Your task to perform on an android device: turn on the 24-hour format for clock Image 0: 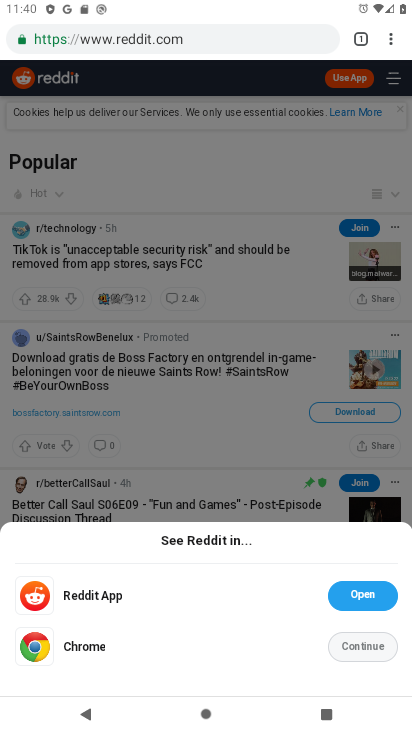
Step 0: press home button
Your task to perform on an android device: turn on the 24-hour format for clock Image 1: 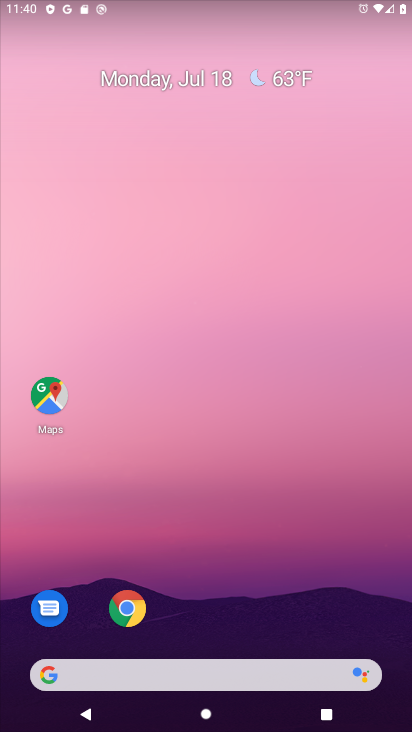
Step 1: drag from (233, 579) to (185, 14)
Your task to perform on an android device: turn on the 24-hour format for clock Image 2: 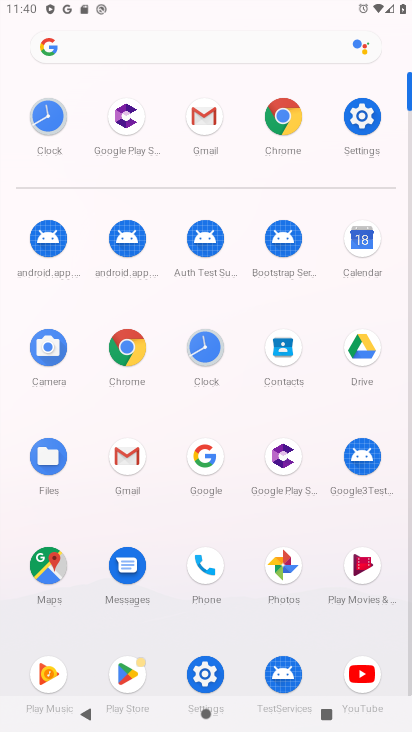
Step 2: click (207, 357)
Your task to perform on an android device: turn on the 24-hour format for clock Image 3: 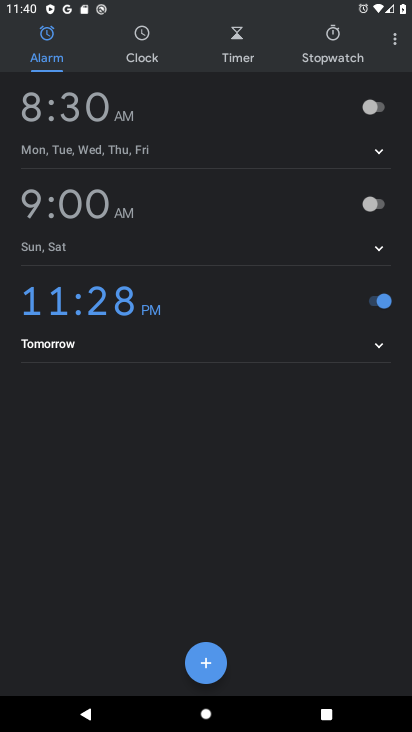
Step 3: click (400, 49)
Your task to perform on an android device: turn on the 24-hour format for clock Image 4: 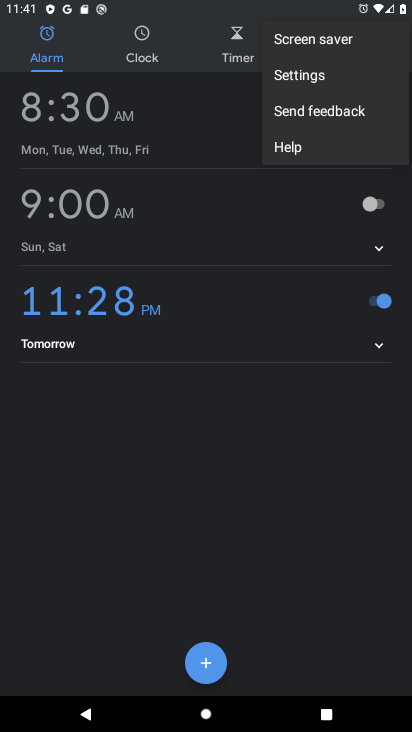
Step 4: click (321, 87)
Your task to perform on an android device: turn on the 24-hour format for clock Image 5: 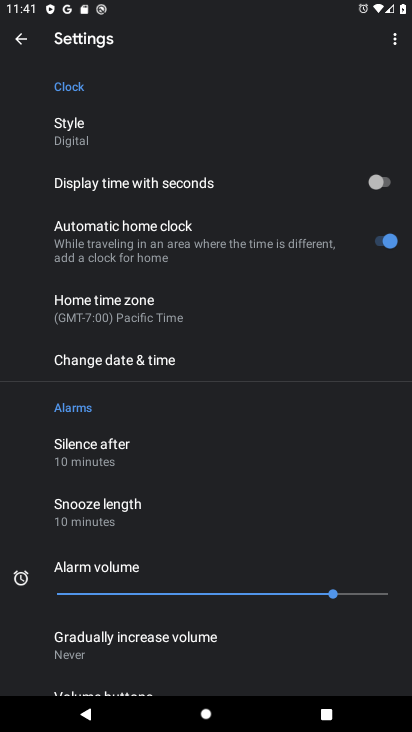
Step 5: click (199, 366)
Your task to perform on an android device: turn on the 24-hour format for clock Image 6: 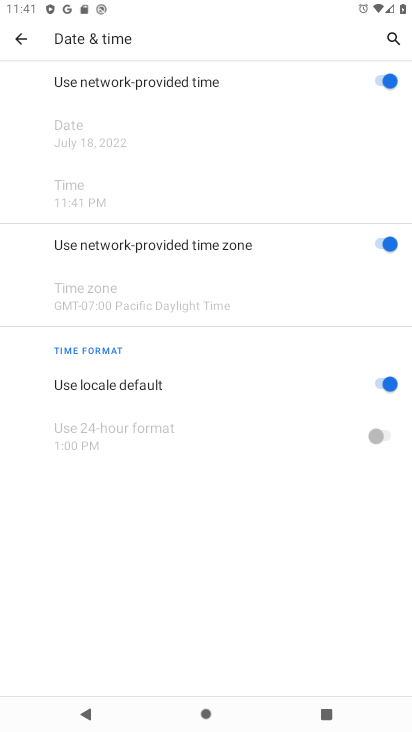
Step 6: click (384, 382)
Your task to perform on an android device: turn on the 24-hour format for clock Image 7: 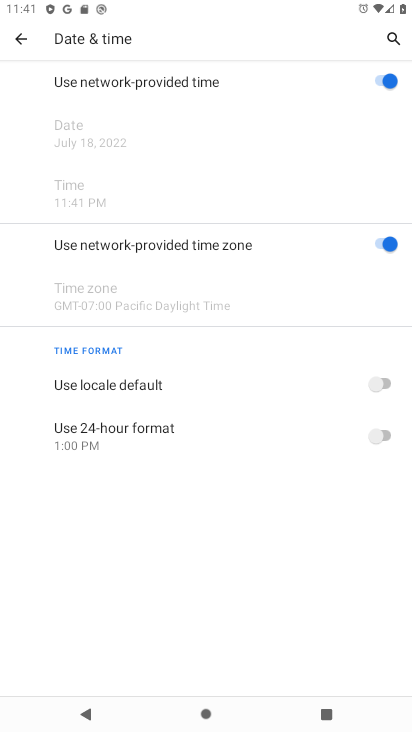
Step 7: click (379, 433)
Your task to perform on an android device: turn on the 24-hour format for clock Image 8: 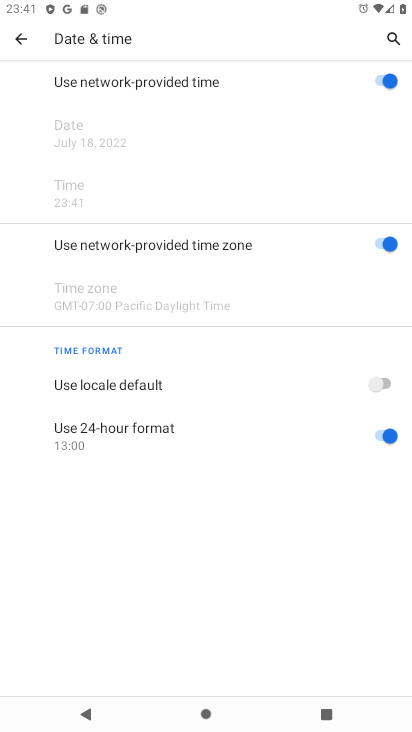
Step 8: task complete